Your task to perform on an android device: stop showing notifications on the lock screen Image 0: 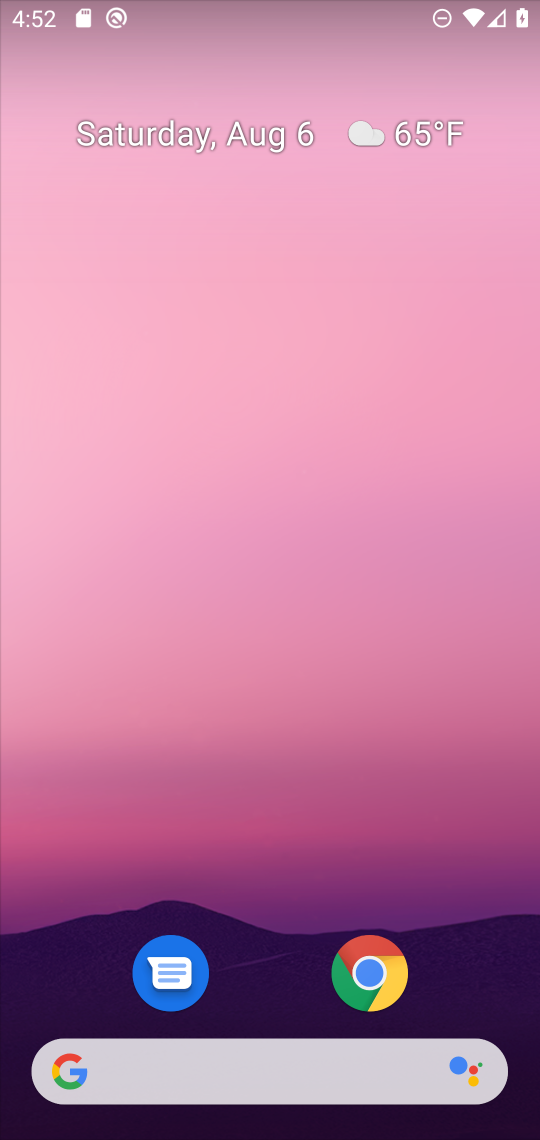
Step 0: drag from (291, 762) to (377, 57)
Your task to perform on an android device: stop showing notifications on the lock screen Image 1: 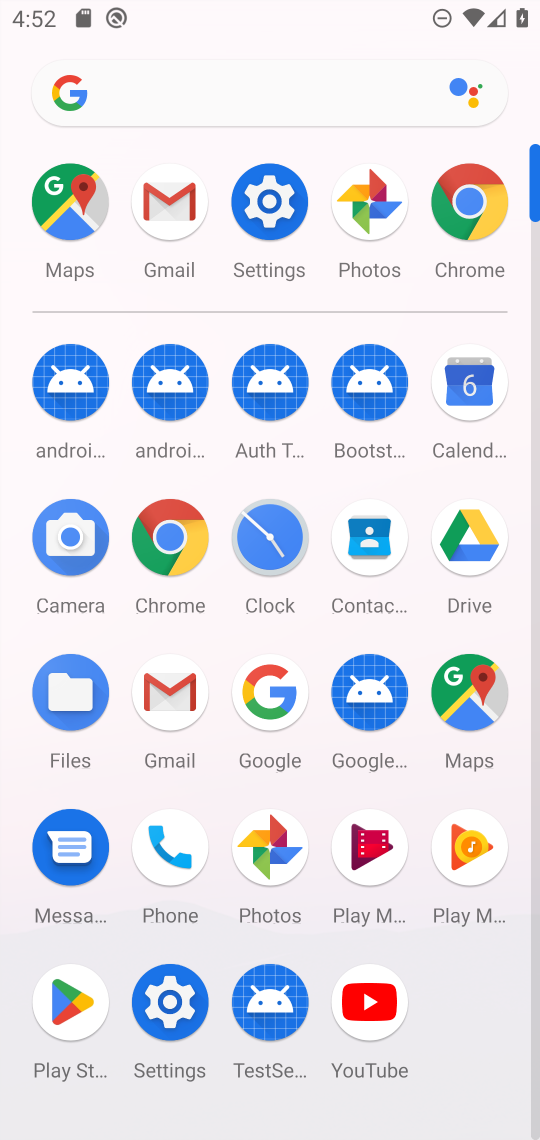
Step 1: click (258, 188)
Your task to perform on an android device: stop showing notifications on the lock screen Image 2: 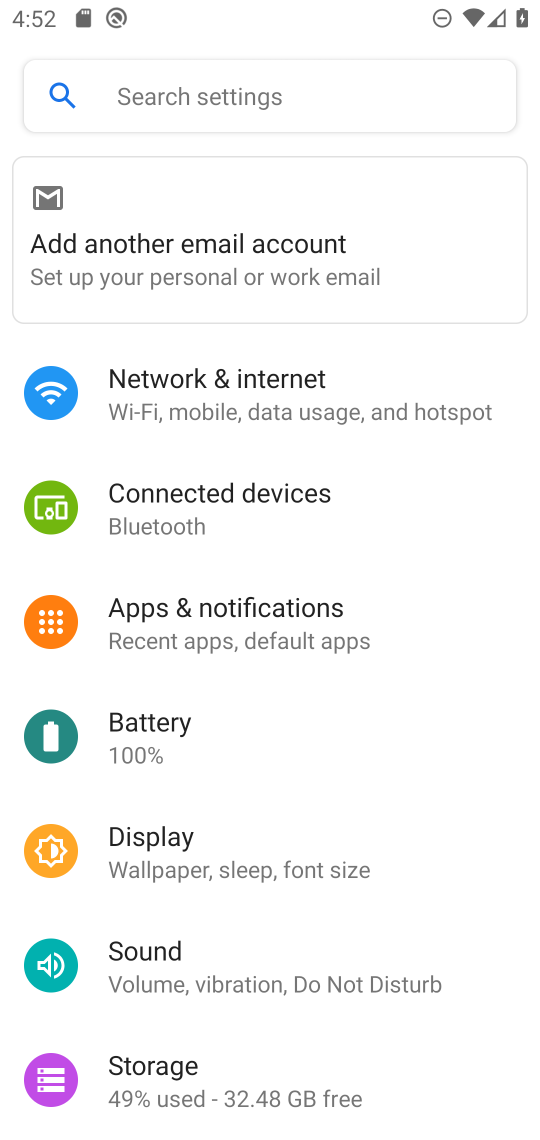
Step 2: click (228, 617)
Your task to perform on an android device: stop showing notifications on the lock screen Image 3: 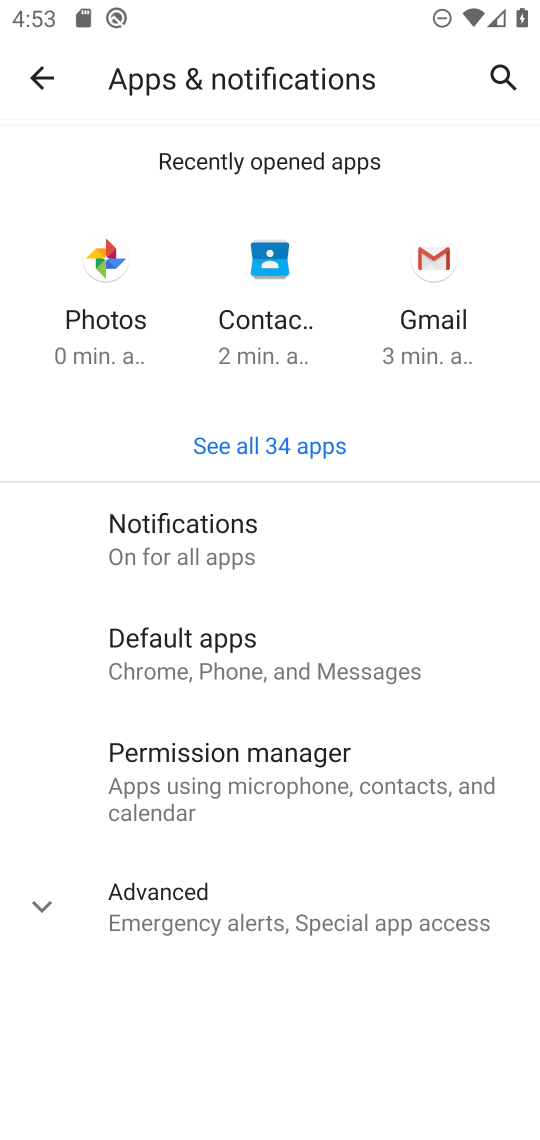
Step 3: click (159, 521)
Your task to perform on an android device: stop showing notifications on the lock screen Image 4: 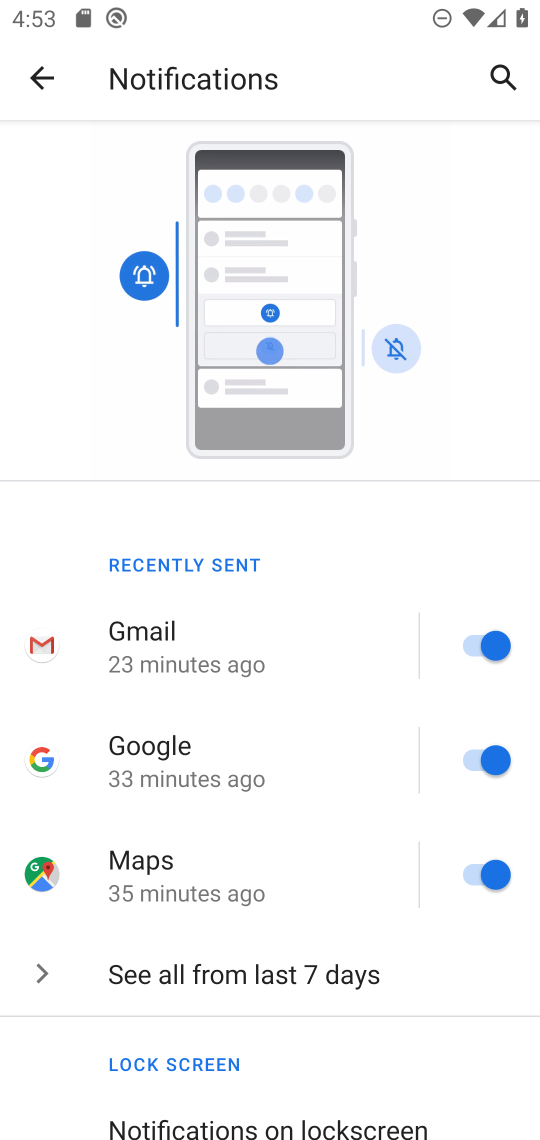
Step 4: drag from (250, 1050) to (228, 160)
Your task to perform on an android device: stop showing notifications on the lock screen Image 5: 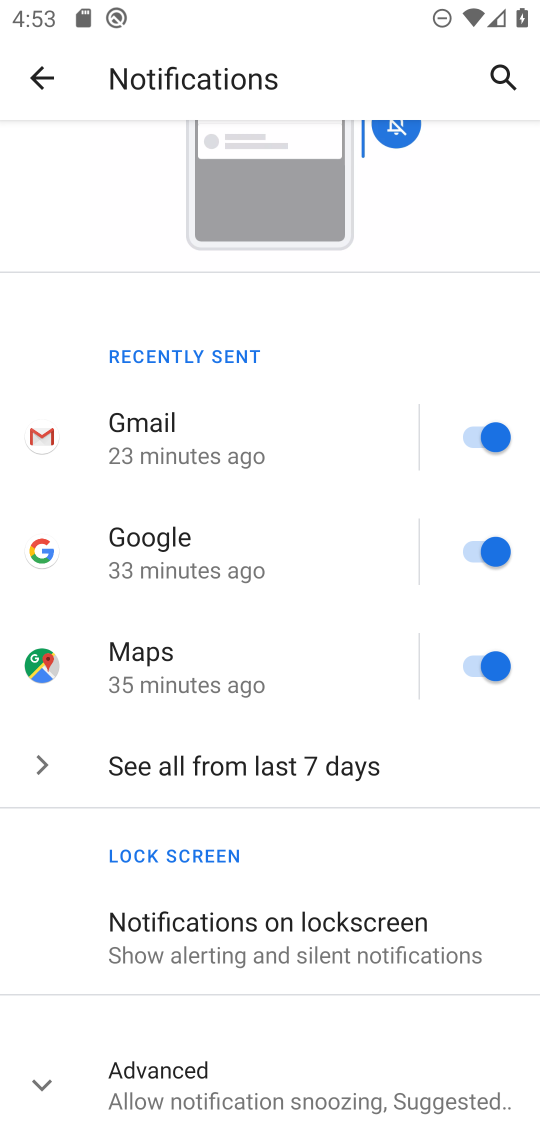
Step 5: click (262, 916)
Your task to perform on an android device: stop showing notifications on the lock screen Image 6: 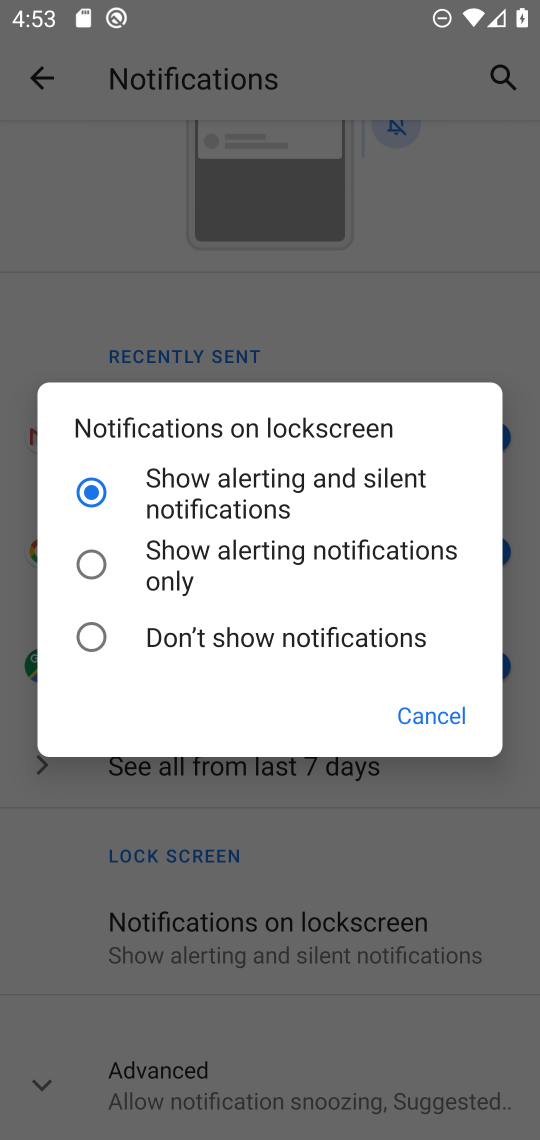
Step 6: click (333, 629)
Your task to perform on an android device: stop showing notifications on the lock screen Image 7: 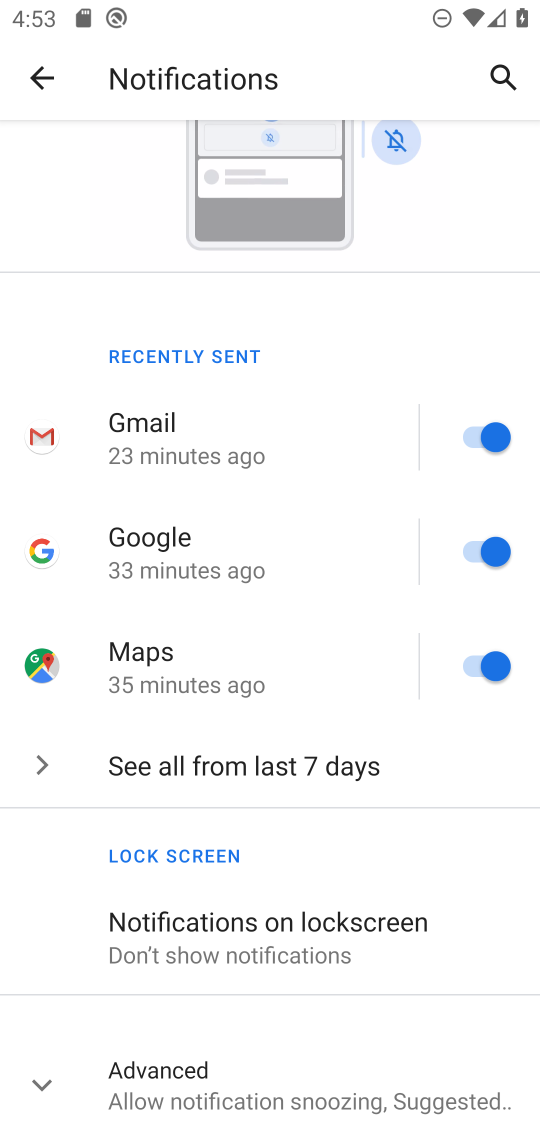
Step 7: task complete